Your task to perform on an android device: Open Chrome and go to settings Image 0: 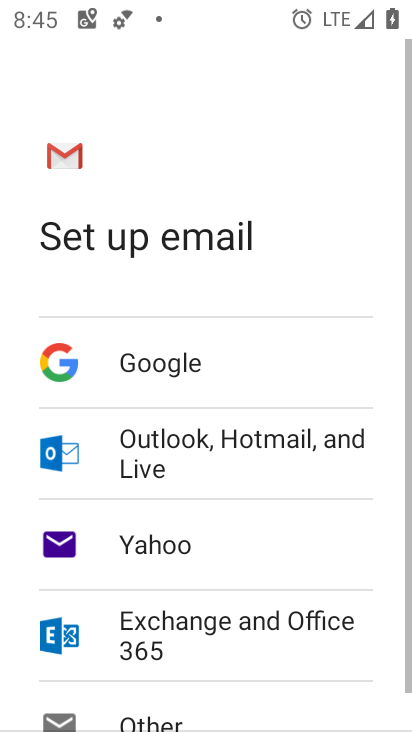
Step 0: press home button
Your task to perform on an android device: Open Chrome and go to settings Image 1: 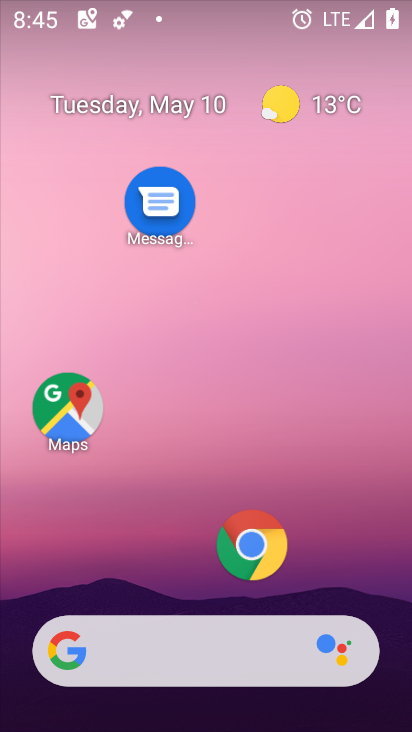
Step 1: click (248, 548)
Your task to perform on an android device: Open Chrome and go to settings Image 2: 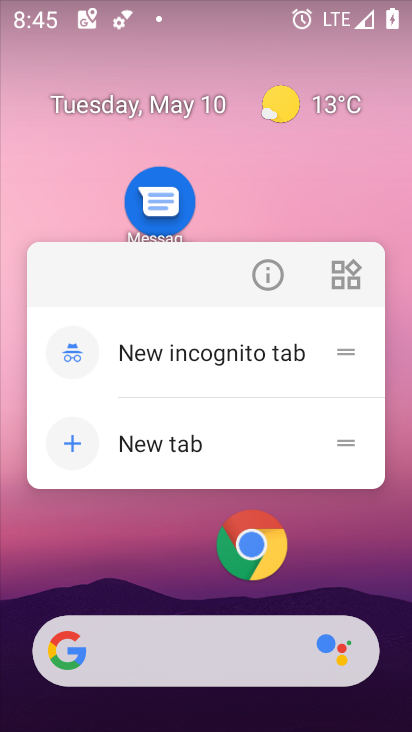
Step 2: click (248, 549)
Your task to perform on an android device: Open Chrome and go to settings Image 3: 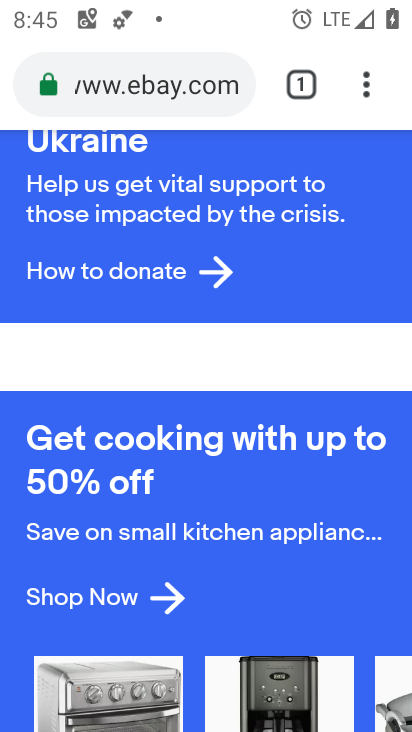
Step 3: click (364, 86)
Your task to perform on an android device: Open Chrome and go to settings Image 4: 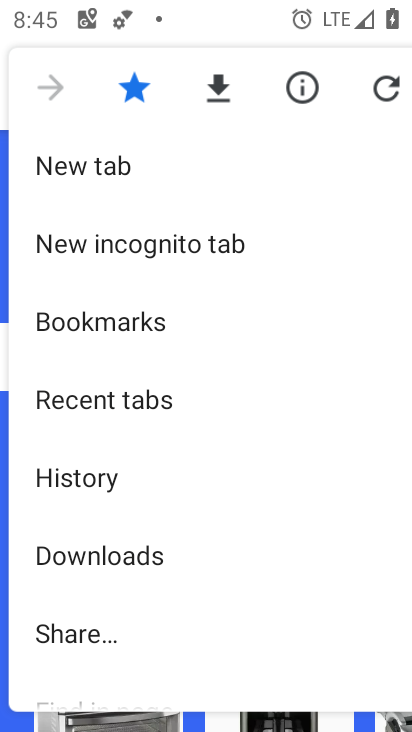
Step 4: drag from (183, 611) to (252, 100)
Your task to perform on an android device: Open Chrome and go to settings Image 5: 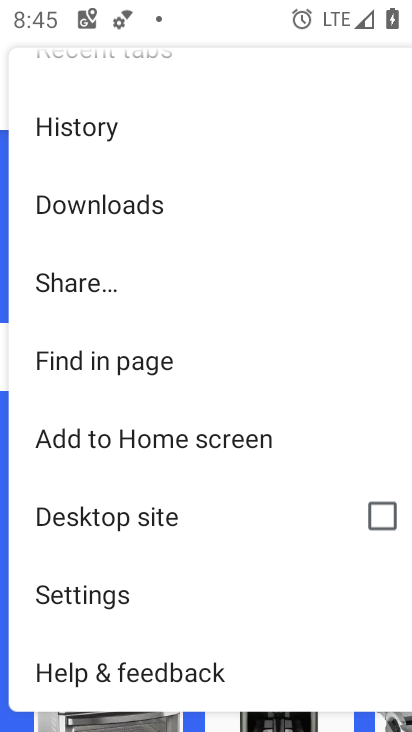
Step 5: click (136, 596)
Your task to perform on an android device: Open Chrome and go to settings Image 6: 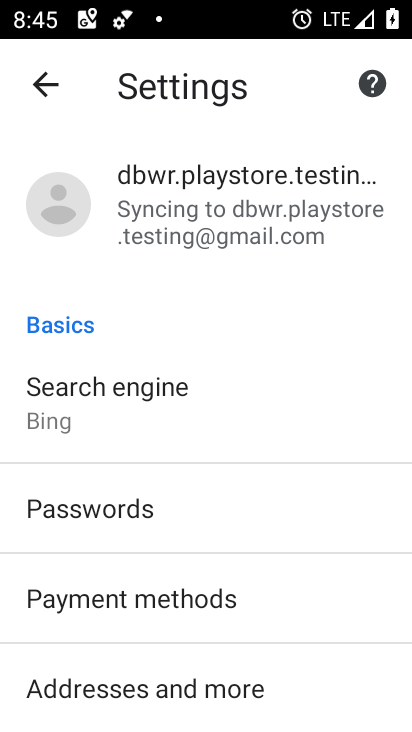
Step 6: task complete